Your task to perform on an android device: check battery use Image 0: 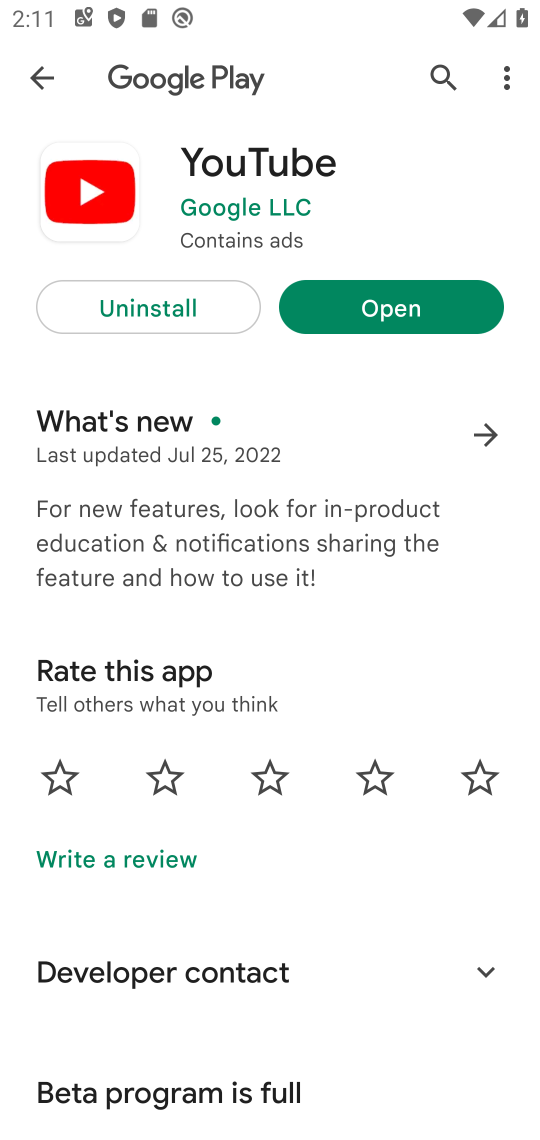
Step 0: press back button
Your task to perform on an android device: check battery use Image 1: 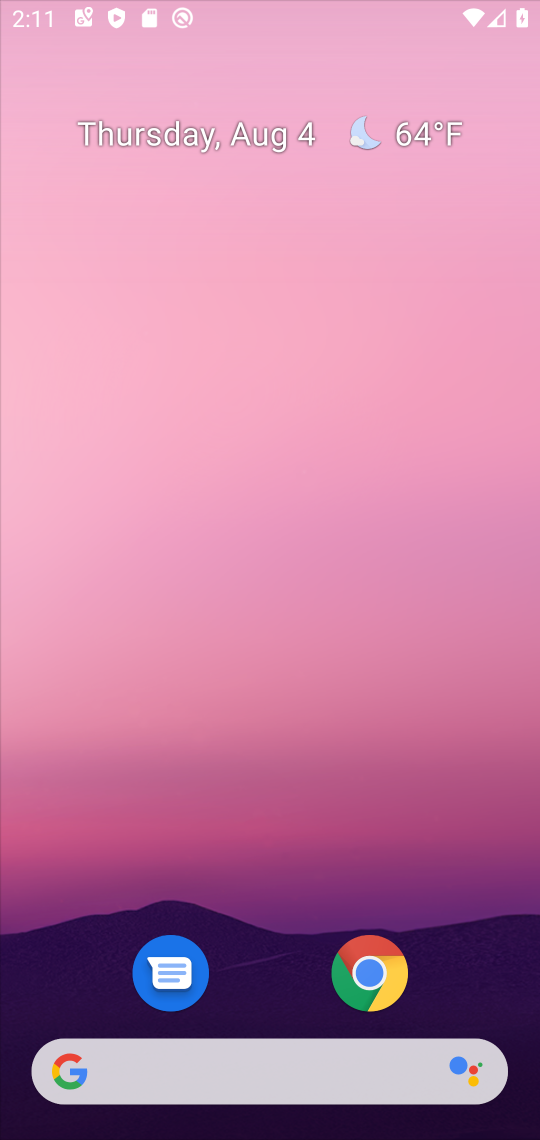
Step 1: press home button
Your task to perform on an android device: check battery use Image 2: 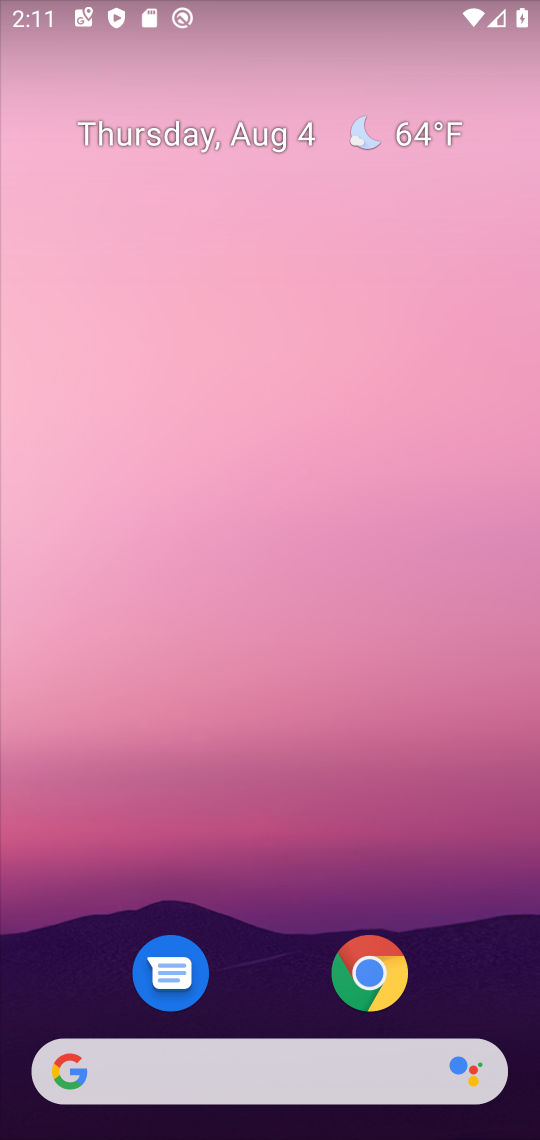
Step 2: drag from (274, 1032) to (227, 72)
Your task to perform on an android device: check battery use Image 3: 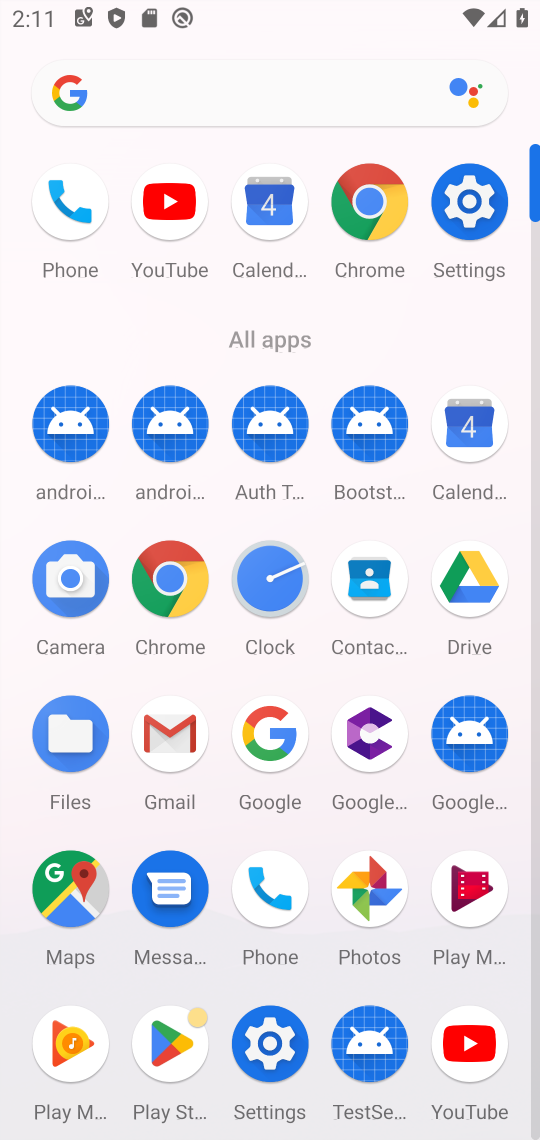
Step 3: click (279, 1048)
Your task to perform on an android device: check battery use Image 4: 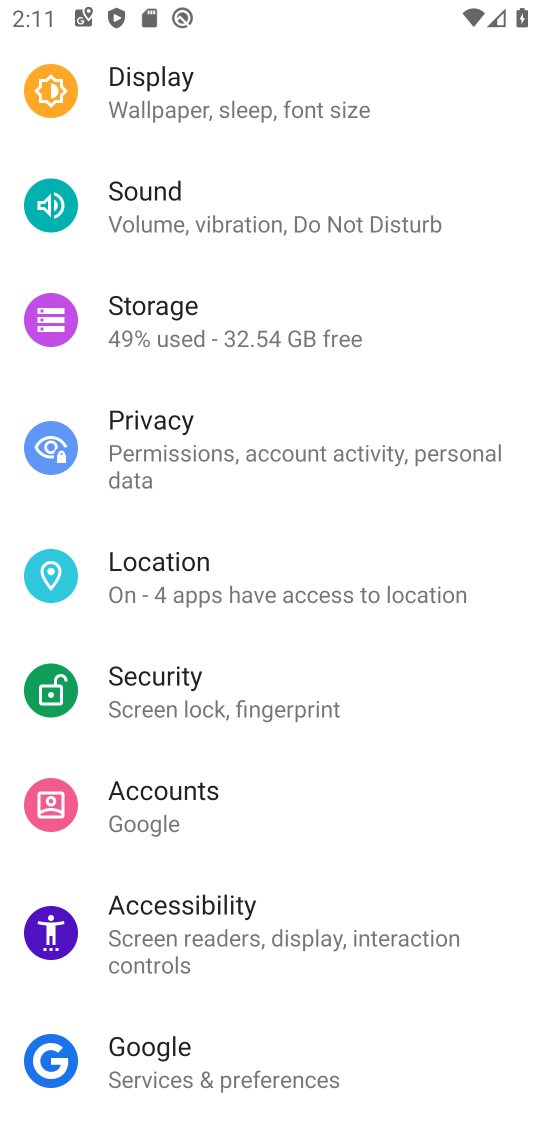
Step 4: drag from (129, 208) to (173, 877)
Your task to perform on an android device: check battery use Image 5: 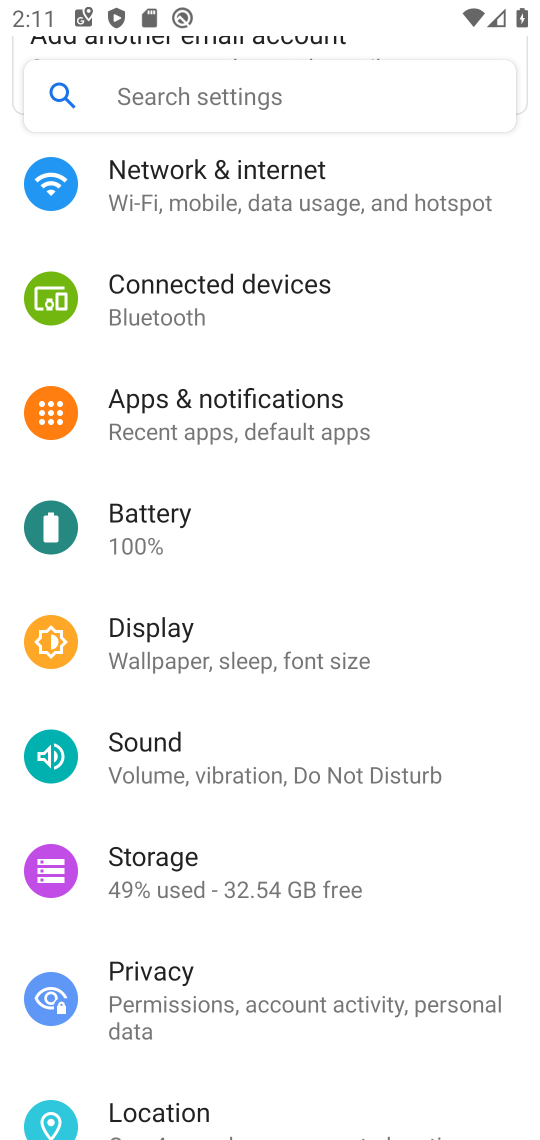
Step 5: click (150, 499)
Your task to perform on an android device: check battery use Image 6: 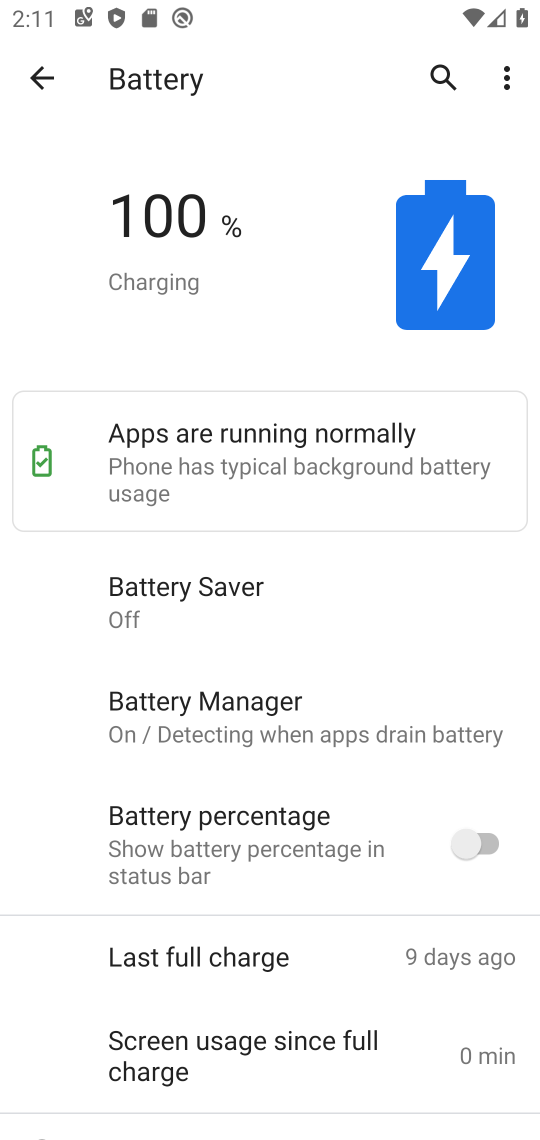
Step 6: task complete